Your task to perform on an android device: Open the calendar and show me this week's events? Image 0: 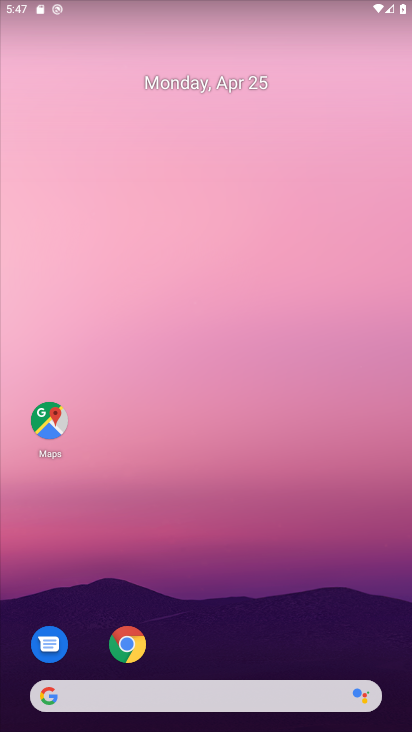
Step 0: drag from (257, 503) to (223, 33)
Your task to perform on an android device: Open the calendar and show me this week's events? Image 1: 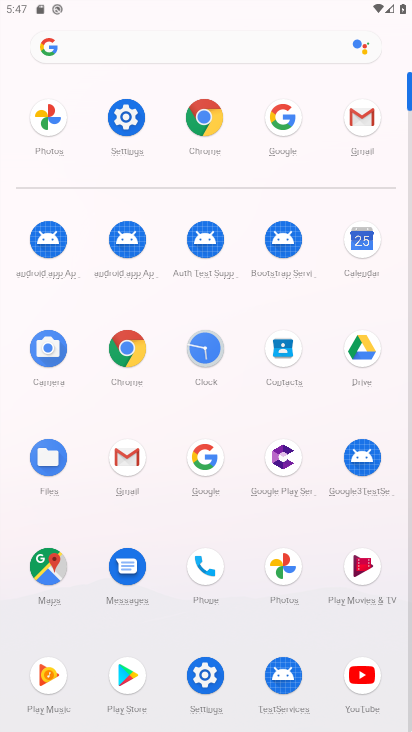
Step 1: click (356, 248)
Your task to perform on an android device: Open the calendar and show me this week's events? Image 2: 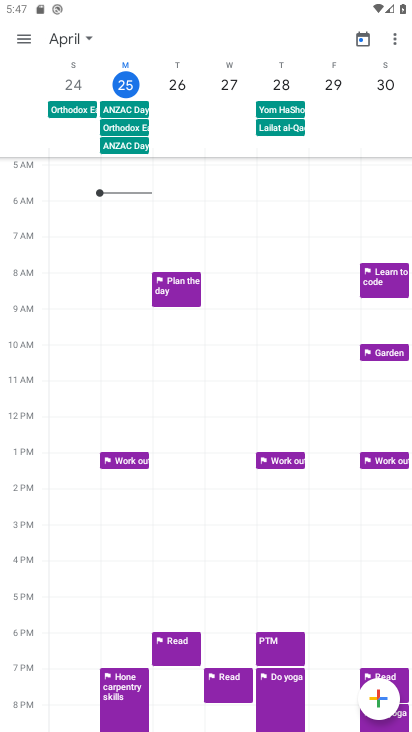
Step 2: task complete